Your task to perform on an android device: toggle location history Image 0: 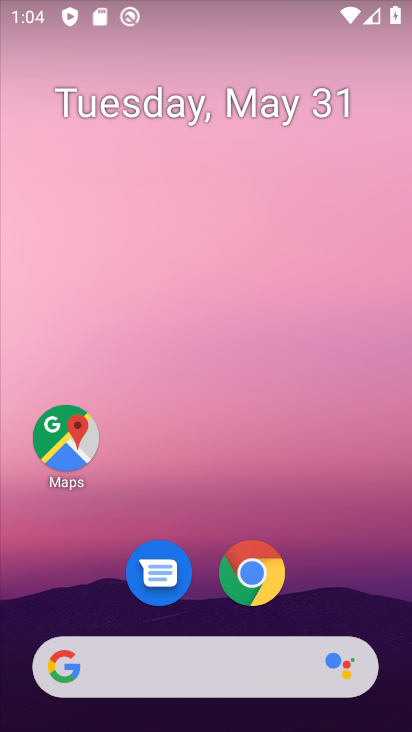
Step 0: drag from (363, 603) to (363, 248)
Your task to perform on an android device: toggle location history Image 1: 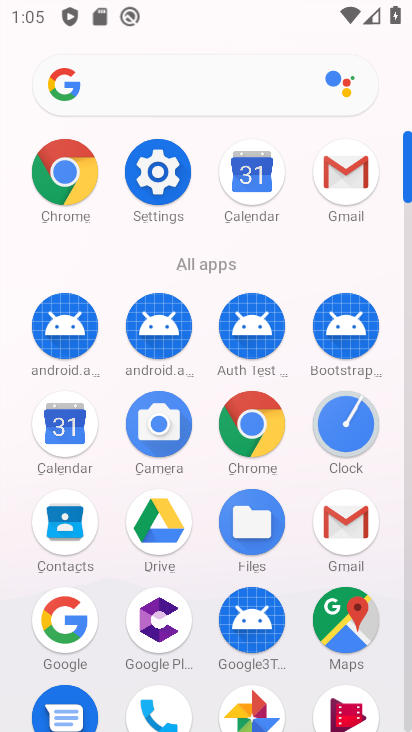
Step 1: click (177, 186)
Your task to perform on an android device: toggle location history Image 2: 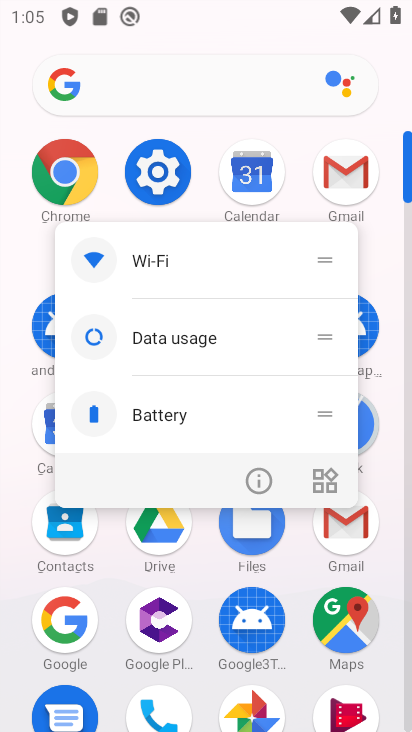
Step 2: click (177, 185)
Your task to perform on an android device: toggle location history Image 3: 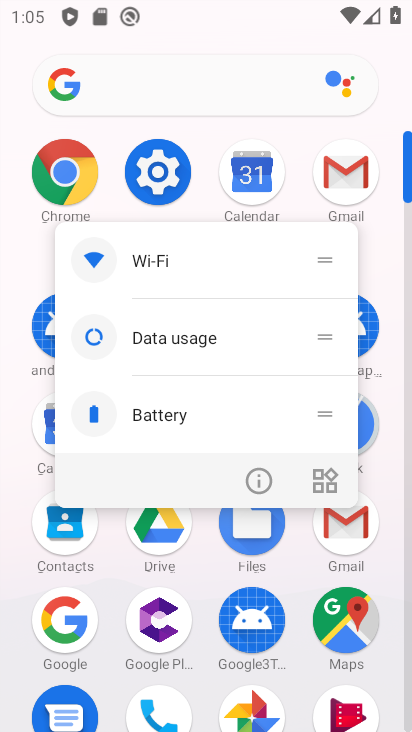
Step 3: click (177, 185)
Your task to perform on an android device: toggle location history Image 4: 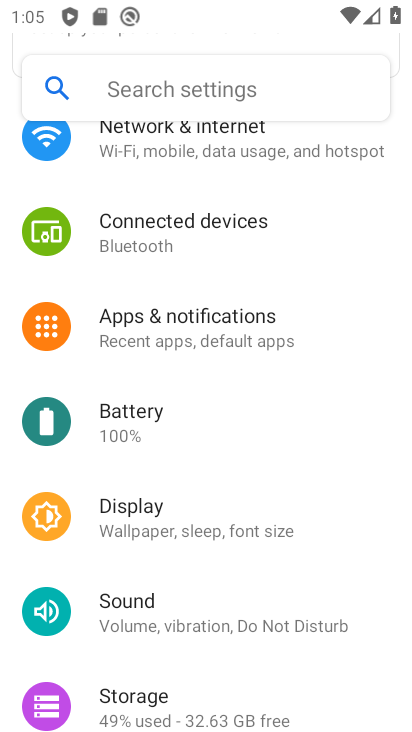
Step 4: drag from (343, 224) to (345, 320)
Your task to perform on an android device: toggle location history Image 5: 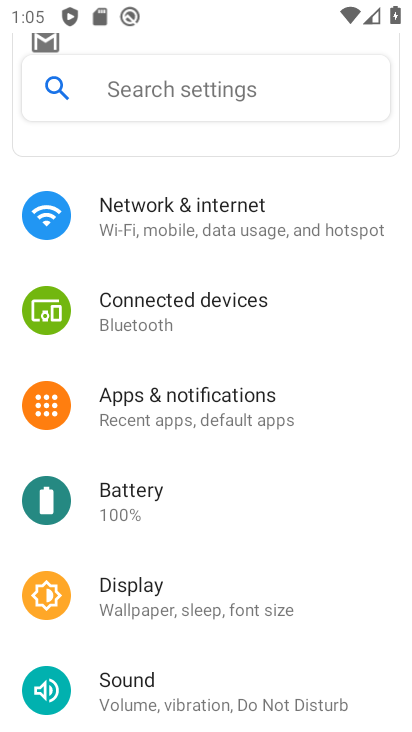
Step 5: drag from (362, 184) to (358, 363)
Your task to perform on an android device: toggle location history Image 6: 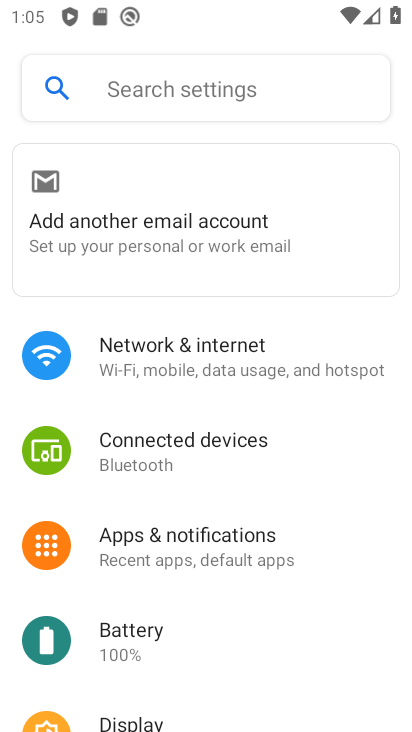
Step 6: drag from (326, 492) to (328, 363)
Your task to perform on an android device: toggle location history Image 7: 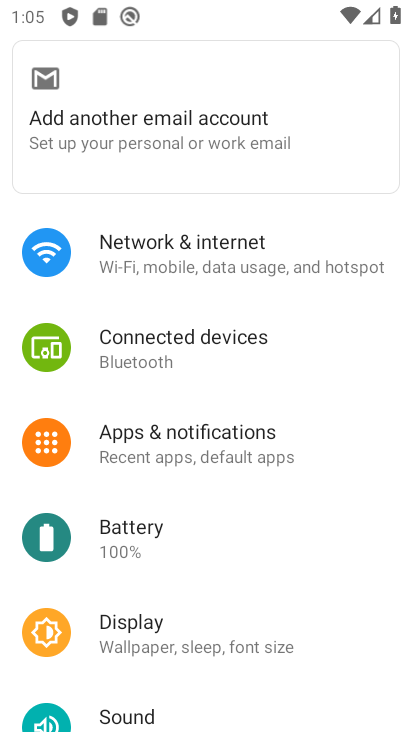
Step 7: drag from (312, 538) to (323, 456)
Your task to perform on an android device: toggle location history Image 8: 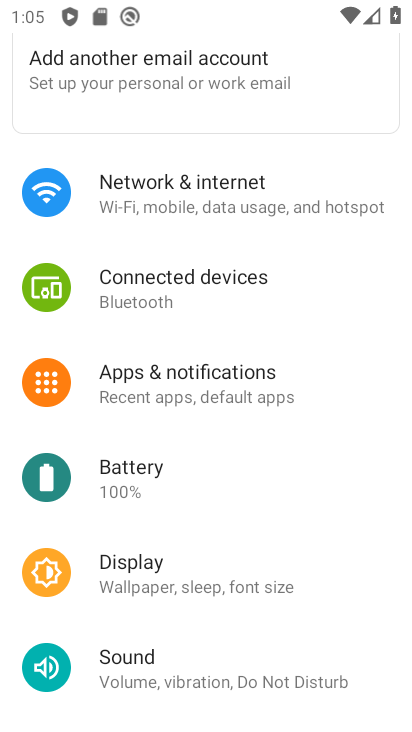
Step 8: drag from (318, 562) to (330, 439)
Your task to perform on an android device: toggle location history Image 9: 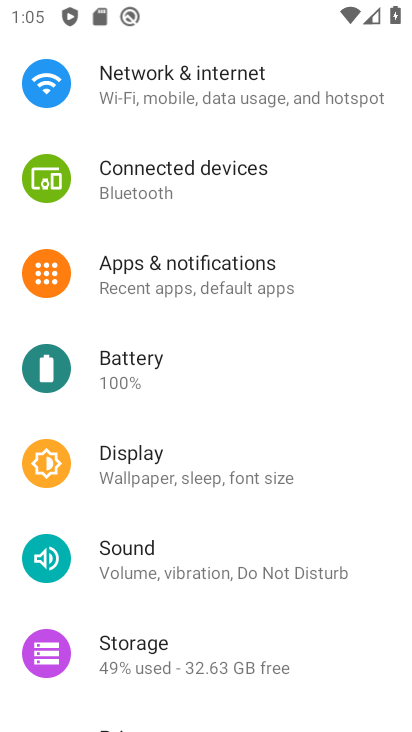
Step 9: drag from (339, 576) to (341, 451)
Your task to perform on an android device: toggle location history Image 10: 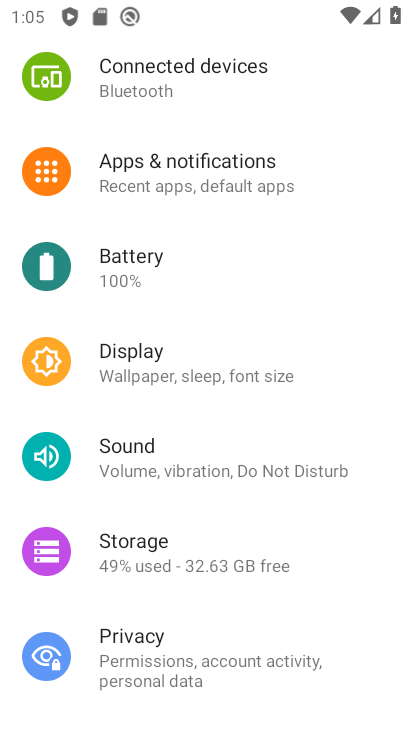
Step 10: drag from (339, 601) to (347, 484)
Your task to perform on an android device: toggle location history Image 11: 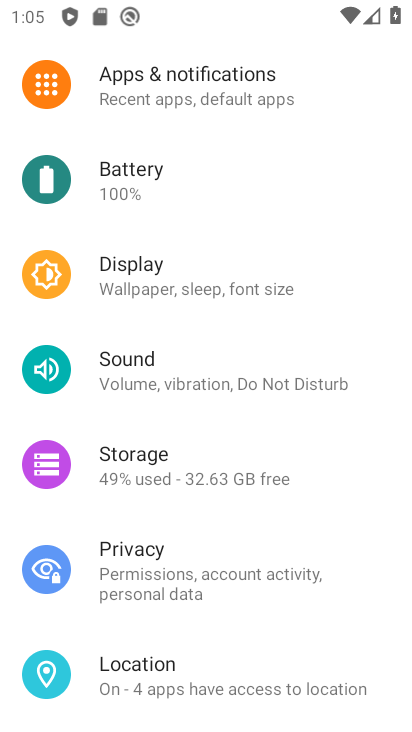
Step 11: drag from (355, 616) to (359, 484)
Your task to perform on an android device: toggle location history Image 12: 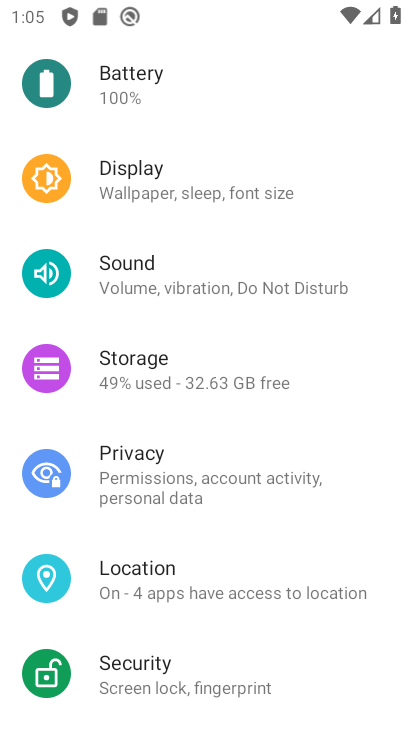
Step 12: click (330, 582)
Your task to perform on an android device: toggle location history Image 13: 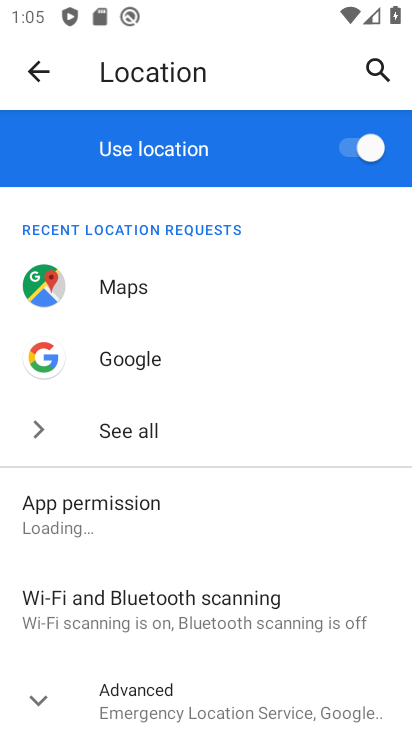
Step 13: drag from (328, 569) to (338, 404)
Your task to perform on an android device: toggle location history Image 14: 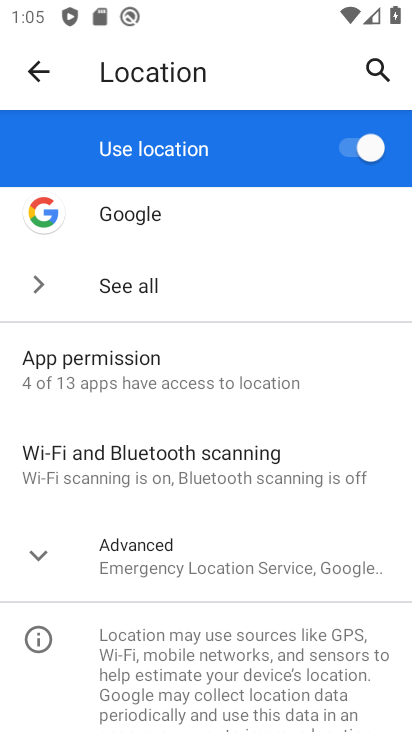
Step 14: click (327, 560)
Your task to perform on an android device: toggle location history Image 15: 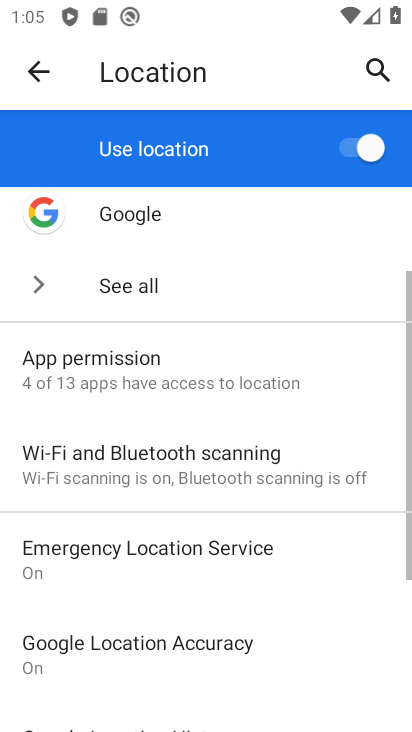
Step 15: drag from (318, 606) to (334, 429)
Your task to perform on an android device: toggle location history Image 16: 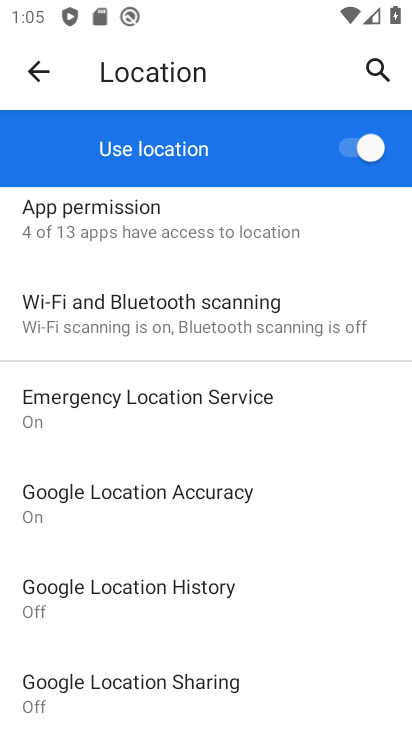
Step 16: drag from (330, 630) to (329, 474)
Your task to perform on an android device: toggle location history Image 17: 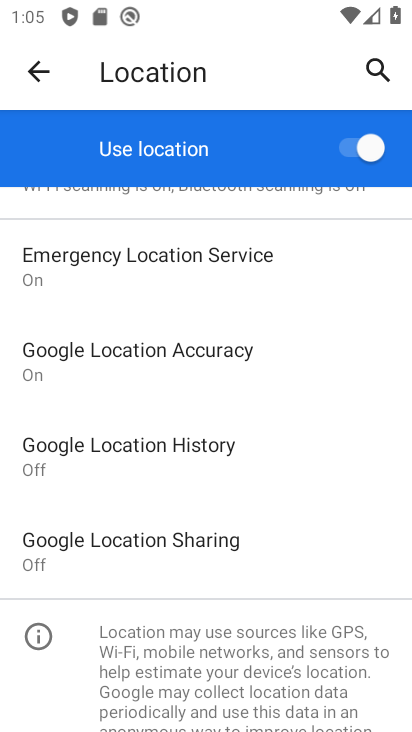
Step 17: click (159, 460)
Your task to perform on an android device: toggle location history Image 18: 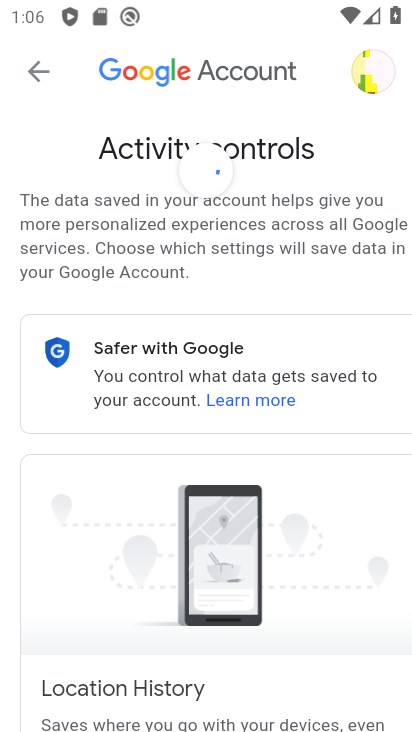
Step 18: drag from (320, 568) to (322, 373)
Your task to perform on an android device: toggle location history Image 19: 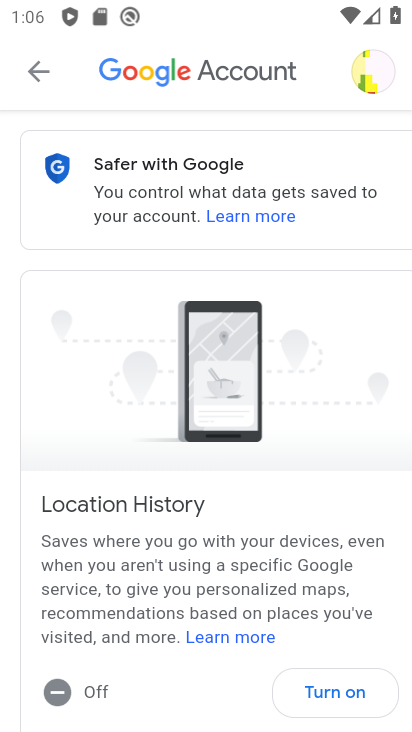
Step 19: drag from (275, 598) to (271, 379)
Your task to perform on an android device: toggle location history Image 20: 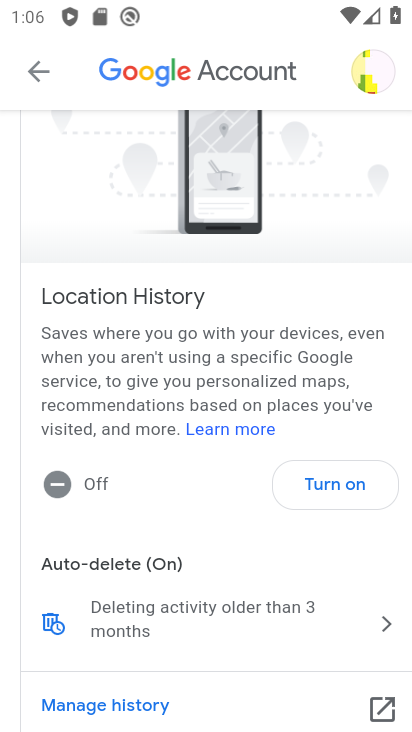
Step 20: click (323, 479)
Your task to perform on an android device: toggle location history Image 21: 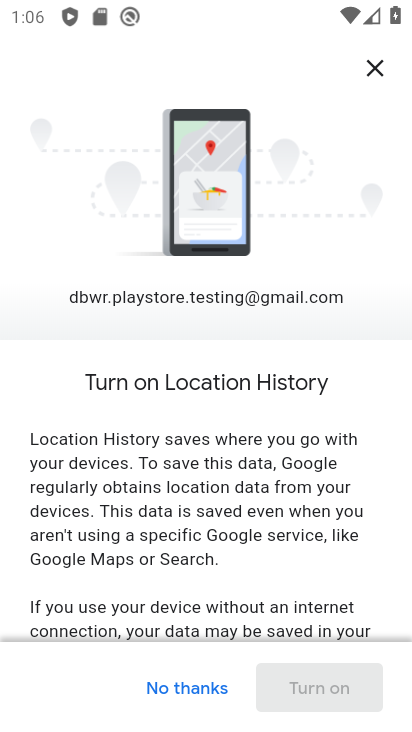
Step 21: drag from (286, 566) to (294, 416)
Your task to perform on an android device: toggle location history Image 22: 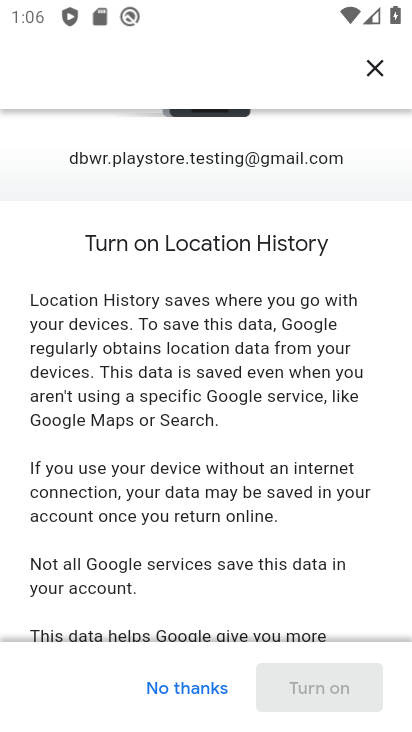
Step 22: drag from (299, 589) to (302, 449)
Your task to perform on an android device: toggle location history Image 23: 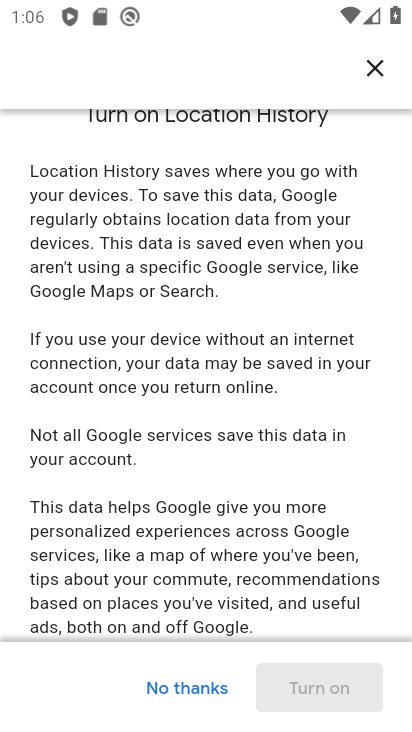
Step 23: drag from (306, 586) to (305, 421)
Your task to perform on an android device: toggle location history Image 24: 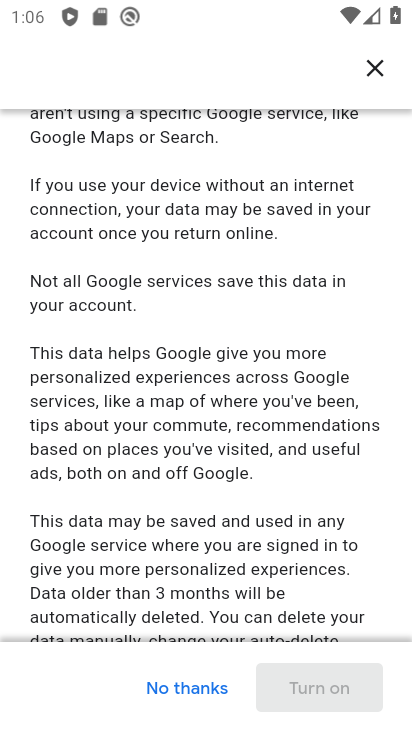
Step 24: drag from (318, 540) to (321, 373)
Your task to perform on an android device: toggle location history Image 25: 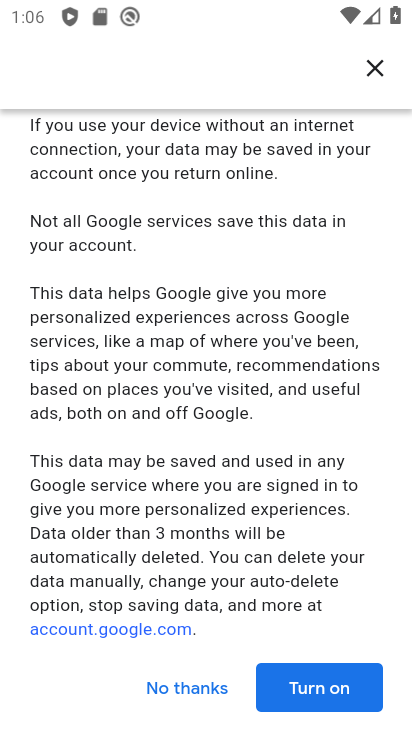
Step 25: click (331, 676)
Your task to perform on an android device: toggle location history Image 26: 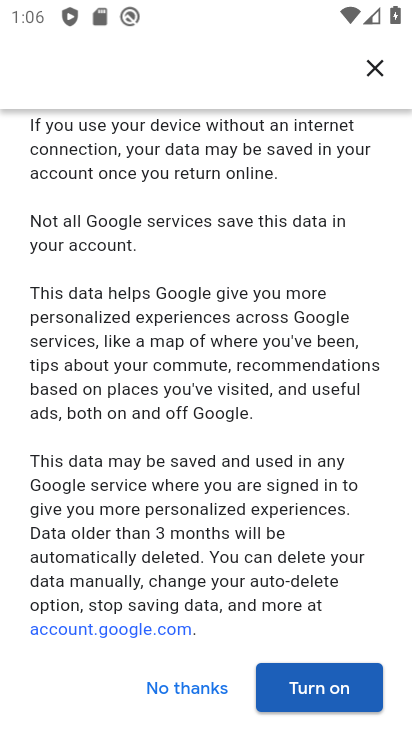
Step 26: click (320, 686)
Your task to perform on an android device: toggle location history Image 27: 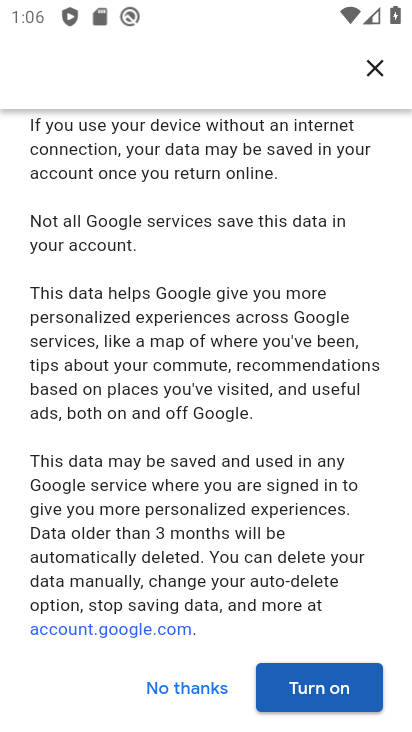
Step 27: click (339, 703)
Your task to perform on an android device: toggle location history Image 28: 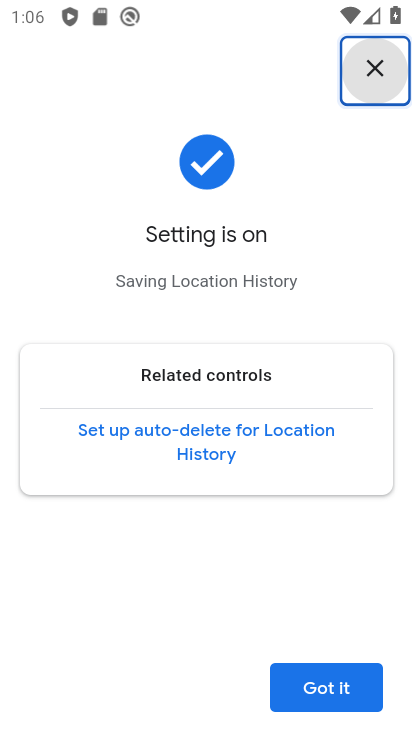
Step 28: task complete